Your task to perform on an android device: toggle notification dots Image 0: 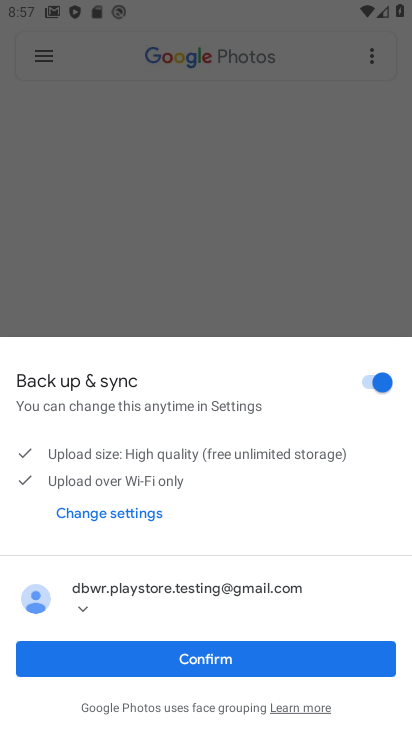
Step 0: press home button
Your task to perform on an android device: toggle notification dots Image 1: 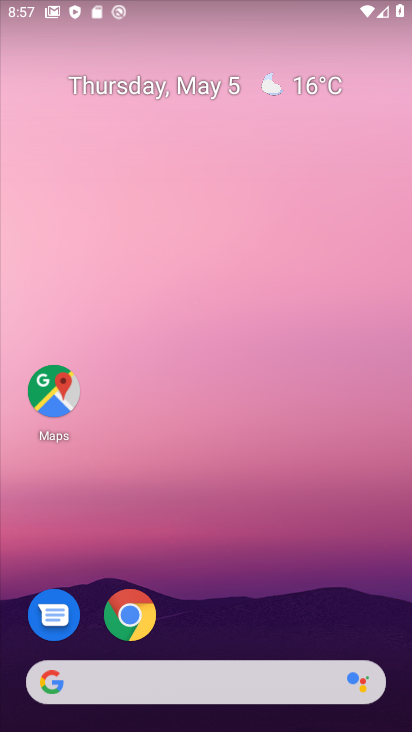
Step 1: drag from (232, 615) to (274, 98)
Your task to perform on an android device: toggle notification dots Image 2: 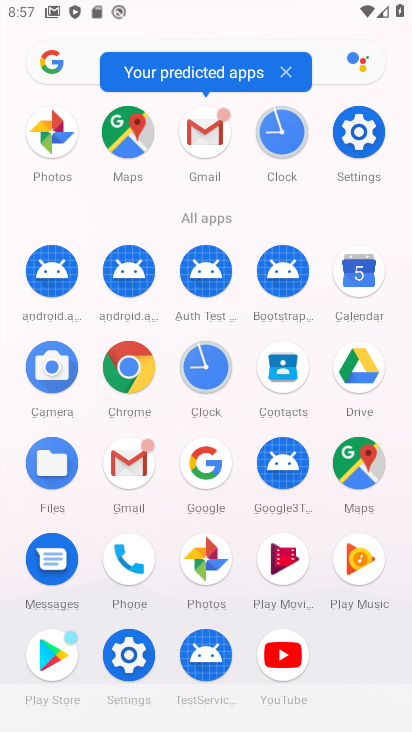
Step 2: click (359, 130)
Your task to perform on an android device: toggle notification dots Image 3: 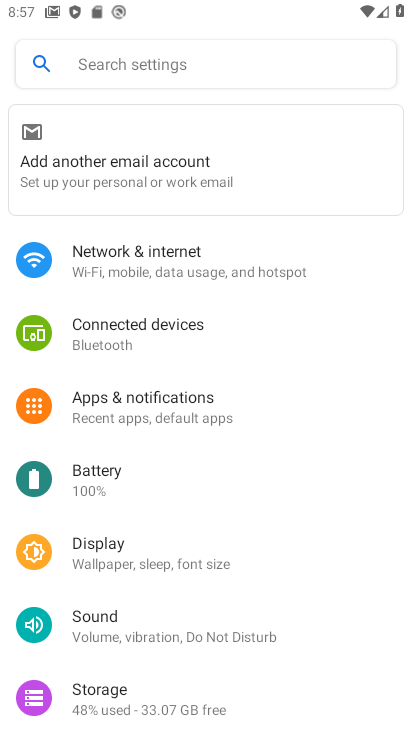
Step 3: drag from (212, 597) to (223, 402)
Your task to perform on an android device: toggle notification dots Image 4: 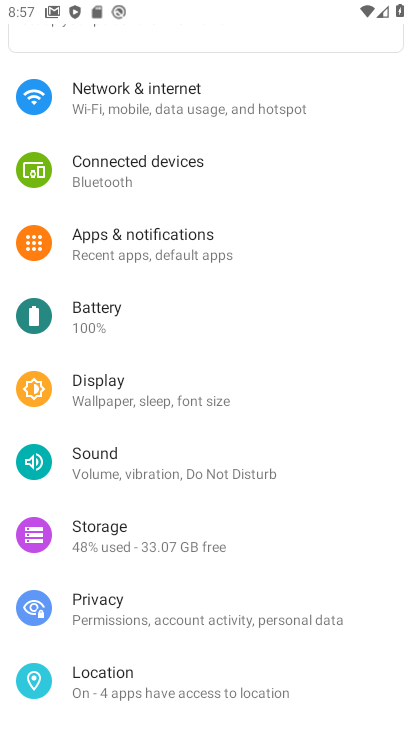
Step 4: click (192, 233)
Your task to perform on an android device: toggle notification dots Image 5: 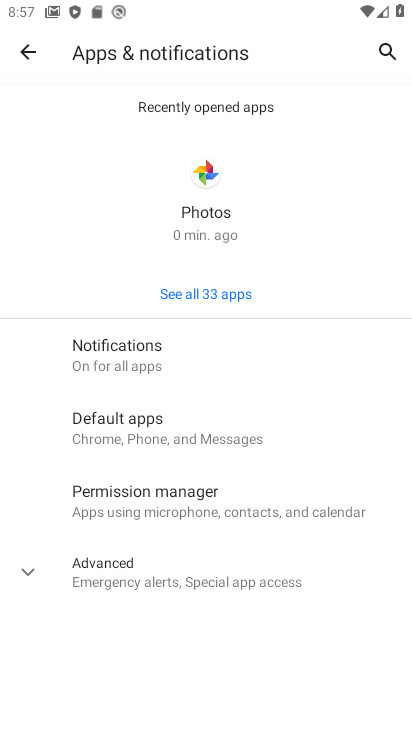
Step 5: click (76, 342)
Your task to perform on an android device: toggle notification dots Image 6: 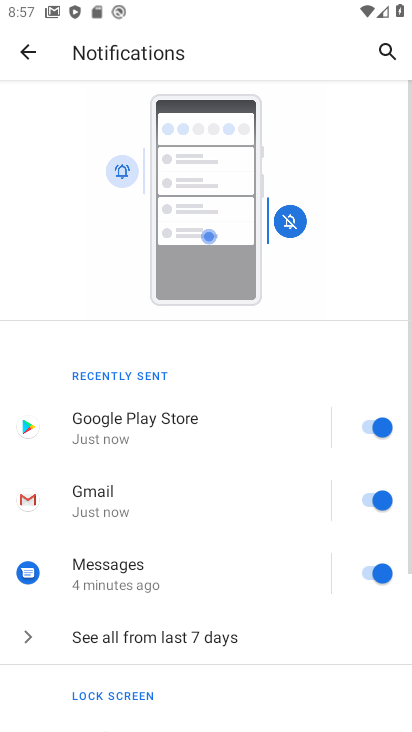
Step 6: drag from (199, 517) to (276, 34)
Your task to perform on an android device: toggle notification dots Image 7: 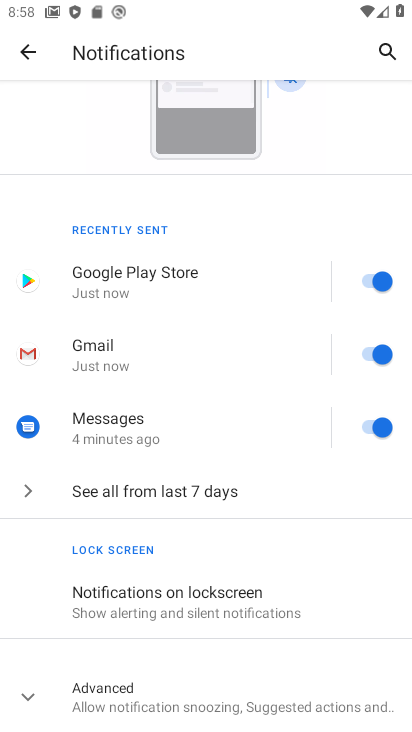
Step 7: click (128, 706)
Your task to perform on an android device: toggle notification dots Image 8: 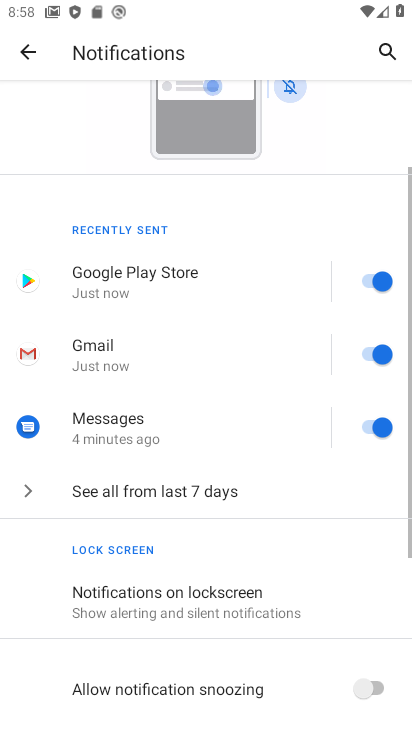
Step 8: drag from (279, 641) to (260, 189)
Your task to perform on an android device: toggle notification dots Image 9: 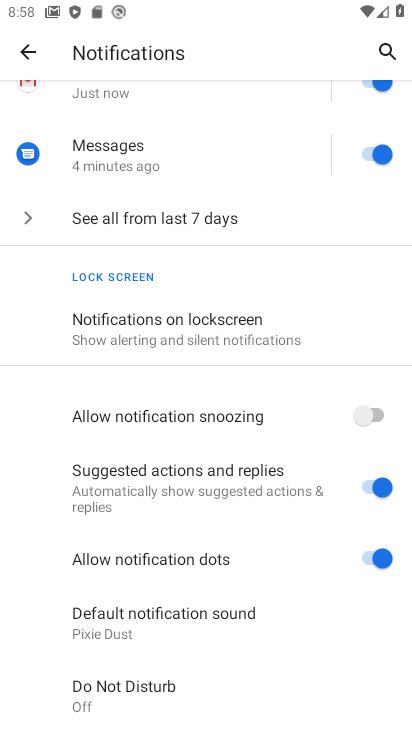
Step 9: click (385, 561)
Your task to perform on an android device: toggle notification dots Image 10: 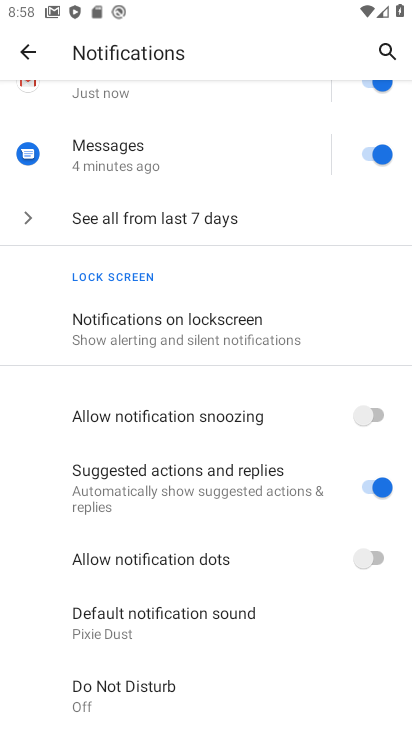
Step 10: task complete